Your task to perform on an android device: Open maps Image 0: 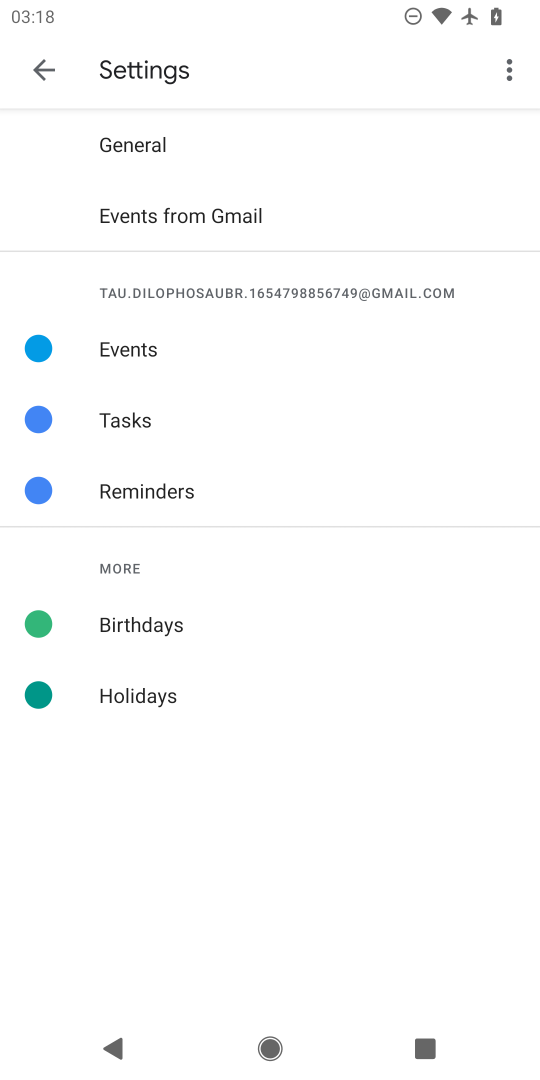
Step 0: press home button
Your task to perform on an android device: Open maps Image 1: 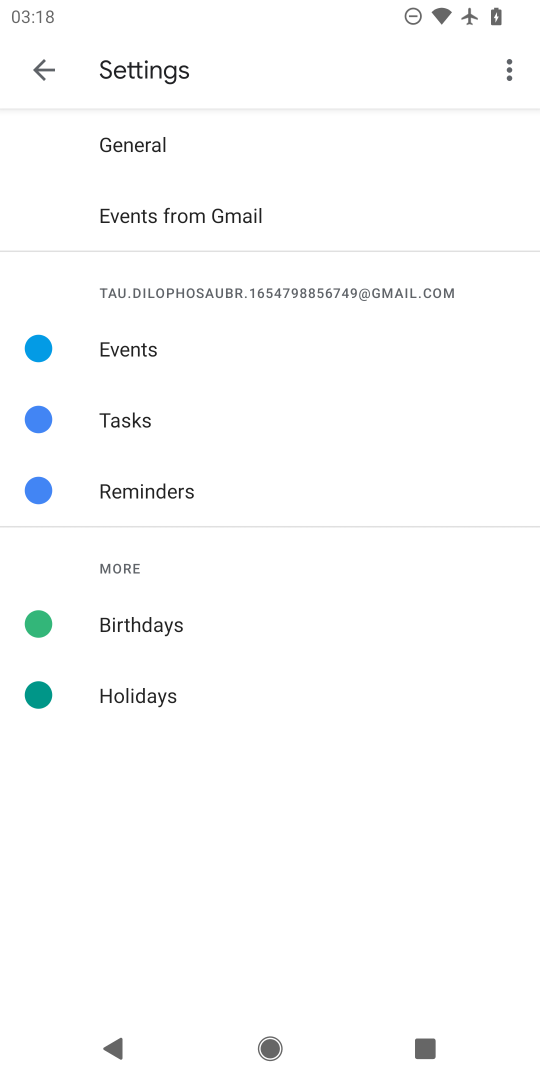
Step 1: press home button
Your task to perform on an android device: Open maps Image 2: 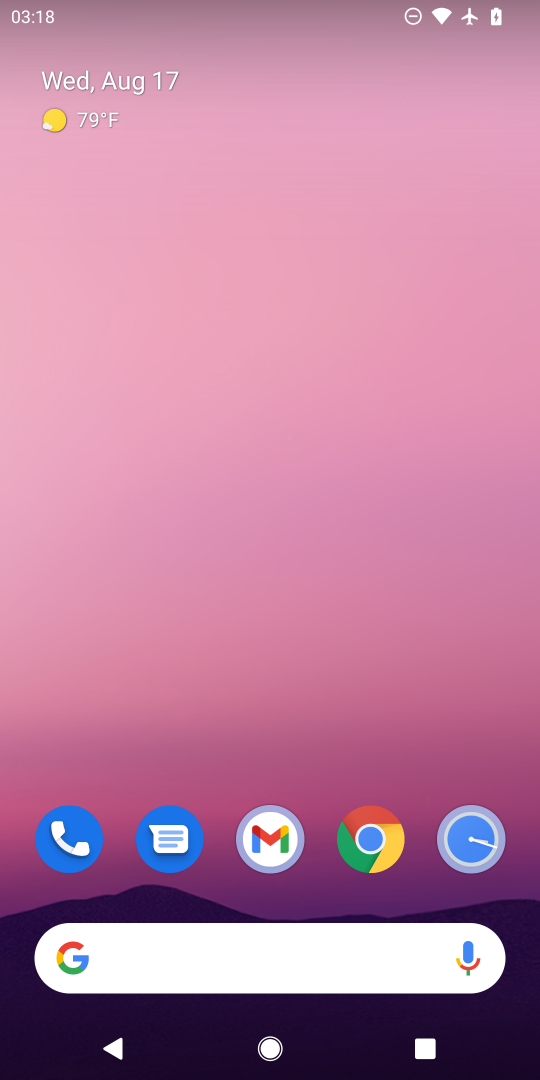
Step 2: drag from (321, 886) to (308, 139)
Your task to perform on an android device: Open maps Image 3: 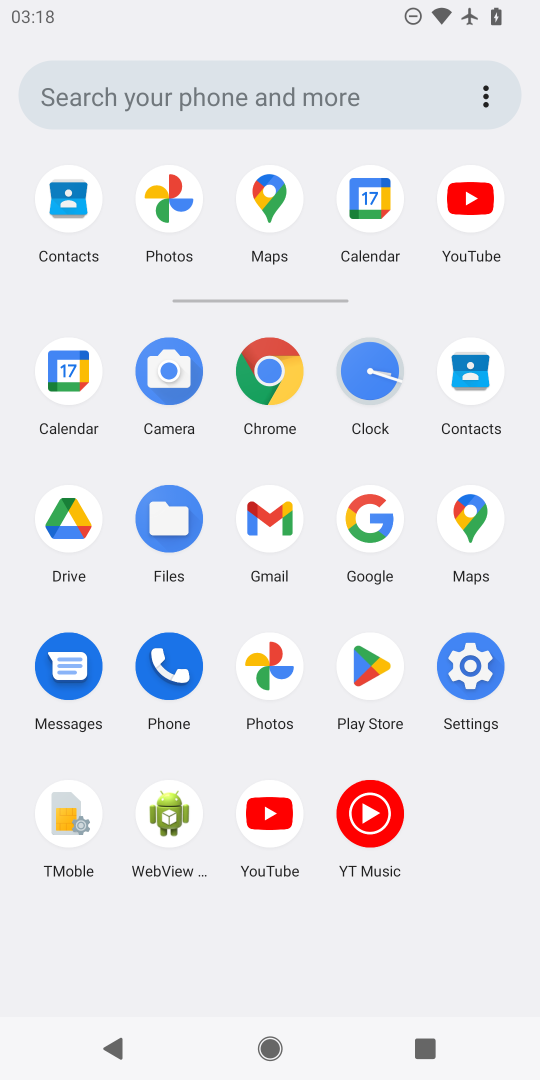
Step 3: click (456, 516)
Your task to perform on an android device: Open maps Image 4: 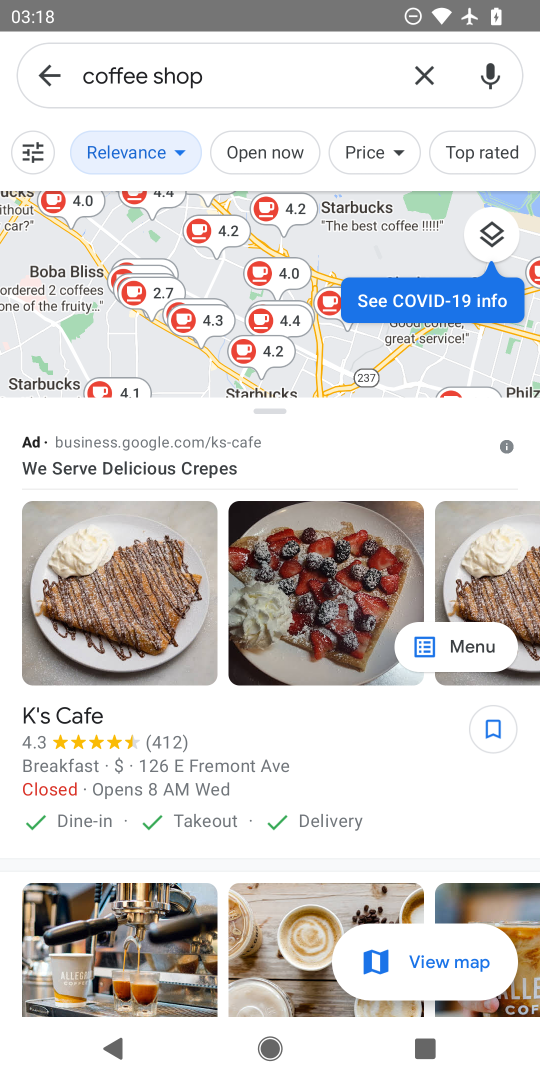
Step 4: task complete